Your task to perform on an android device: Open Chrome and go to settings Image 0: 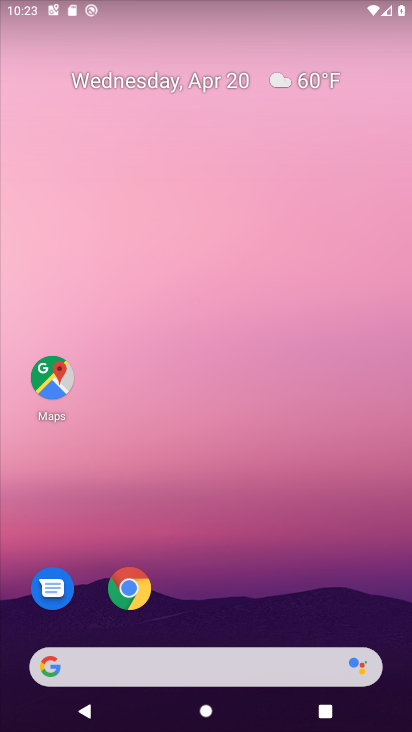
Step 0: click (132, 593)
Your task to perform on an android device: Open Chrome and go to settings Image 1: 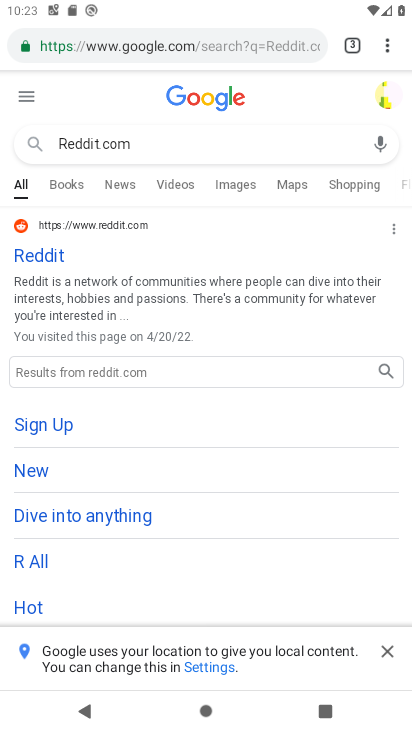
Step 1: click (385, 48)
Your task to perform on an android device: Open Chrome and go to settings Image 2: 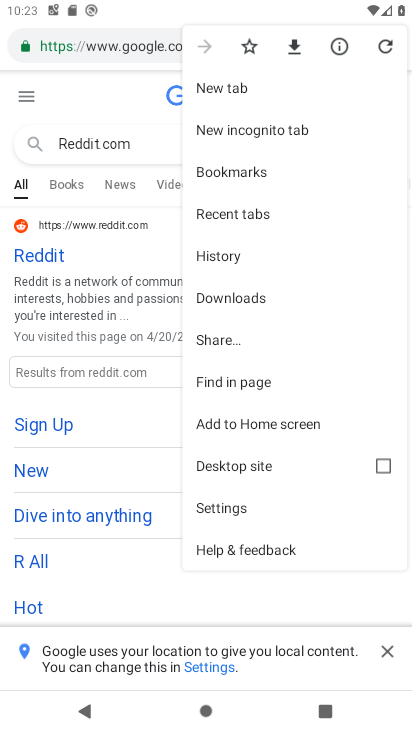
Step 2: click (226, 504)
Your task to perform on an android device: Open Chrome and go to settings Image 3: 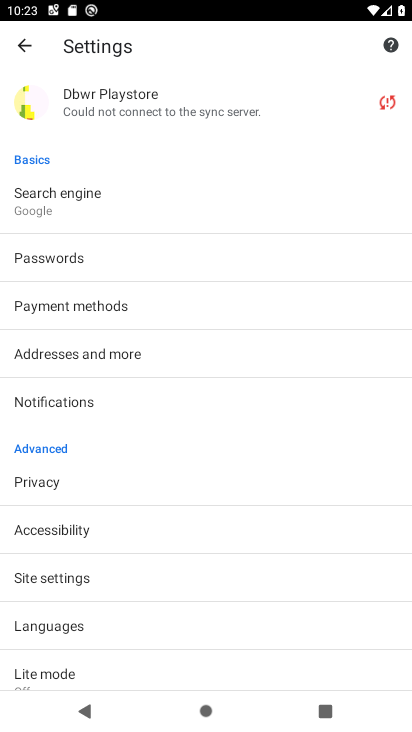
Step 3: task complete